Your task to perform on an android device: What is the recent news? Image 0: 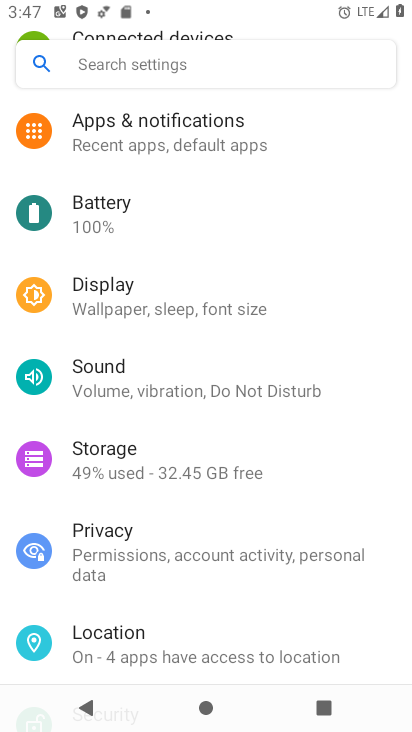
Step 0: press home button
Your task to perform on an android device: What is the recent news? Image 1: 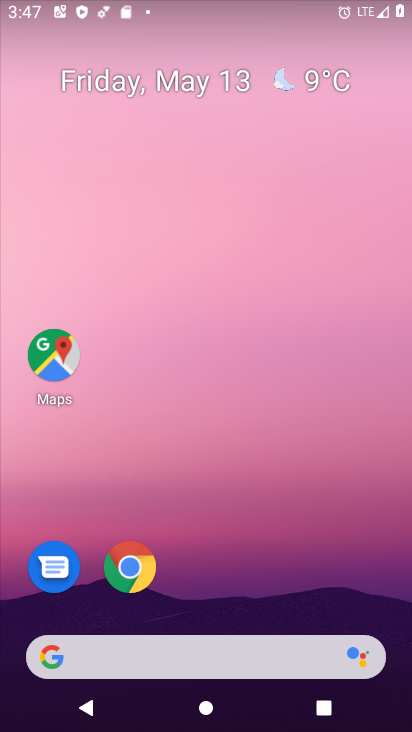
Step 1: click (147, 661)
Your task to perform on an android device: What is the recent news? Image 2: 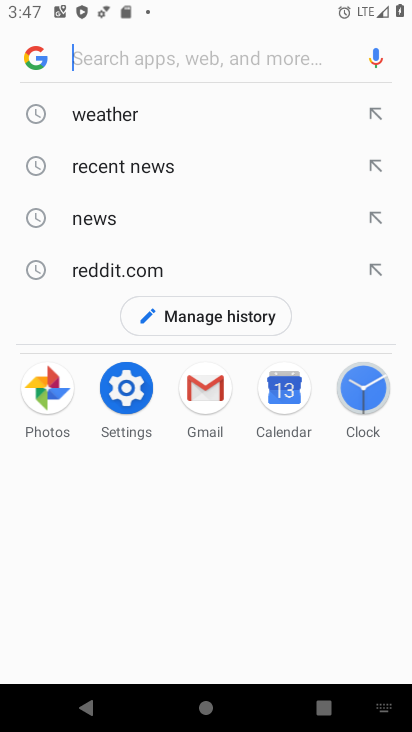
Step 2: click (100, 170)
Your task to perform on an android device: What is the recent news? Image 3: 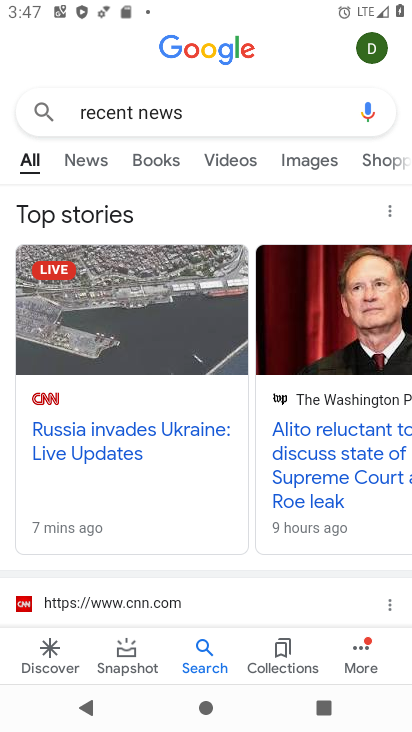
Step 3: click (82, 164)
Your task to perform on an android device: What is the recent news? Image 4: 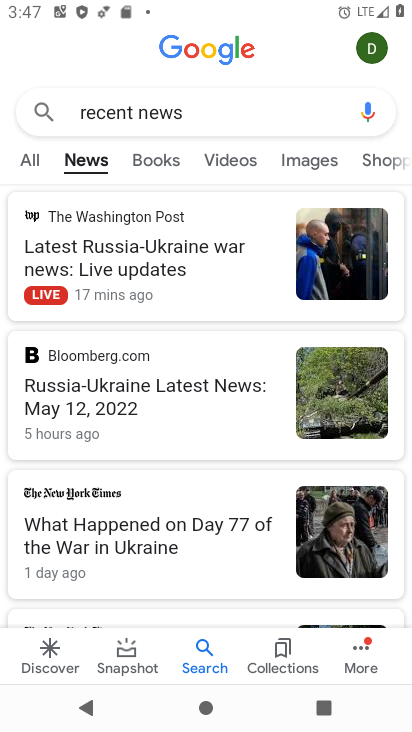
Step 4: click (125, 291)
Your task to perform on an android device: What is the recent news? Image 5: 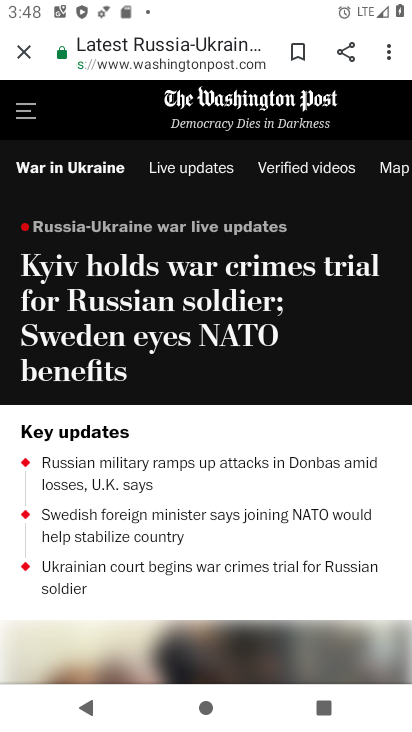
Step 5: task complete